Your task to perform on an android device: turn off javascript in the chrome app Image 0: 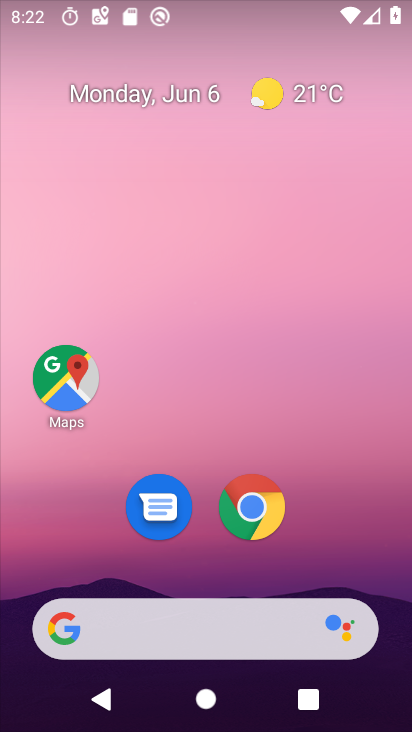
Step 0: press home button
Your task to perform on an android device: turn off javascript in the chrome app Image 1: 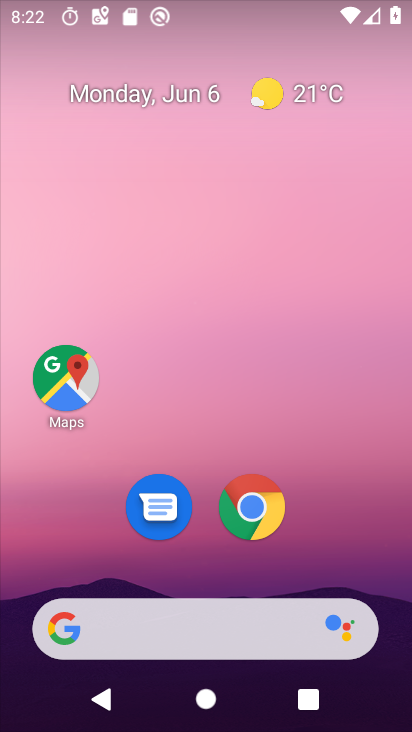
Step 1: click (240, 492)
Your task to perform on an android device: turn off javascript in the chrome app Image 2: 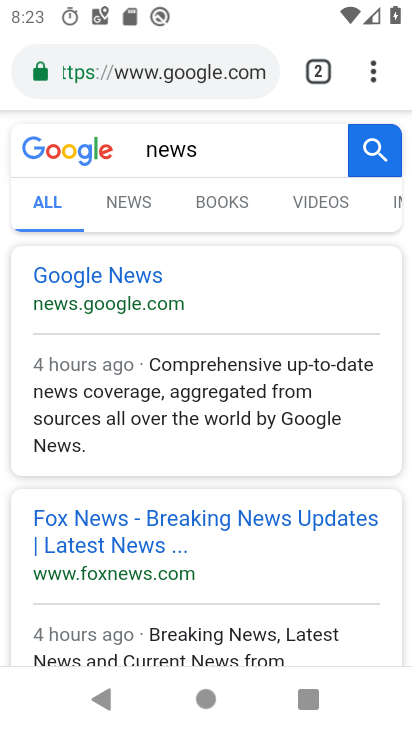
Step 2: drag from (382, 79) to (192, 508)
Your task to perform on an android device: turn off javascript in the chrome app Image 3: 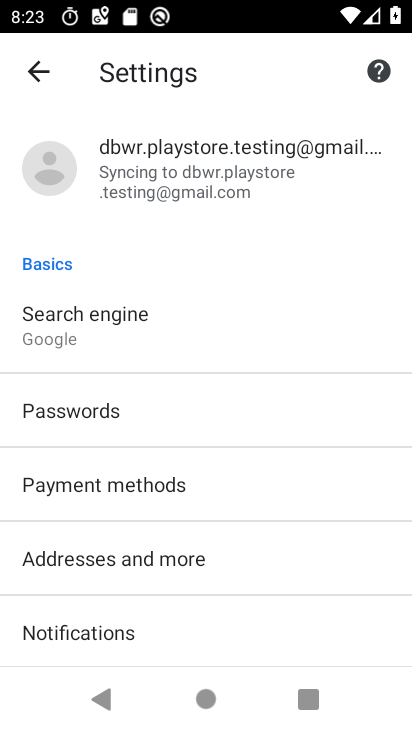
Step 3: drag from (179, 643) to (256, 31)
Your task to perform on an android device: turn off javascript in the chrome app Image 4: 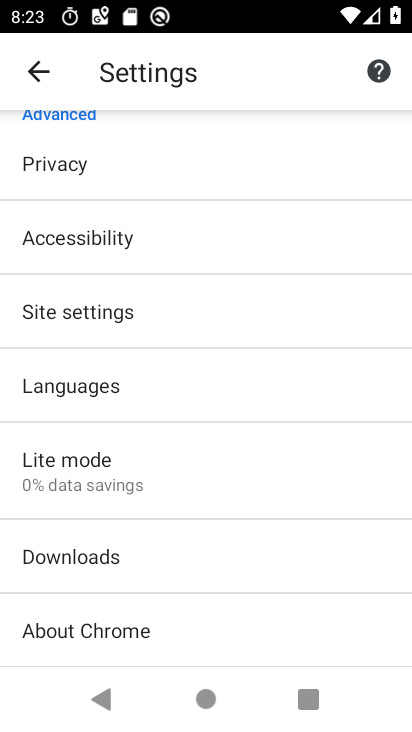
Step 4: click (123, 314)
Your task to perform on an android device: turn off javascript in the chrome app Image 5: 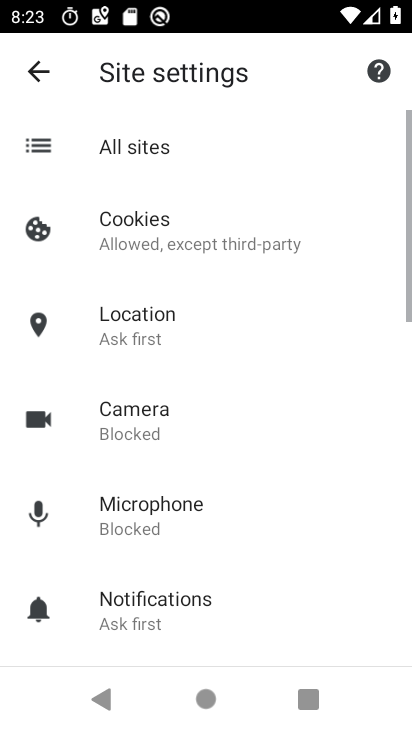
Step 5: drag from (179, 555) to (239, 173)
Your task to perform on an android device: turn off javascript in the chrome app Image 6: 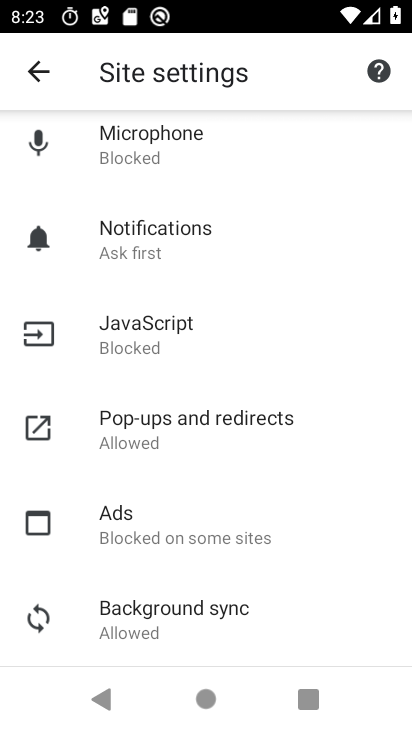
Step 6: click (196, 320)
Your task to perform on an android device: turn off javascript in the chrome app Image 7: 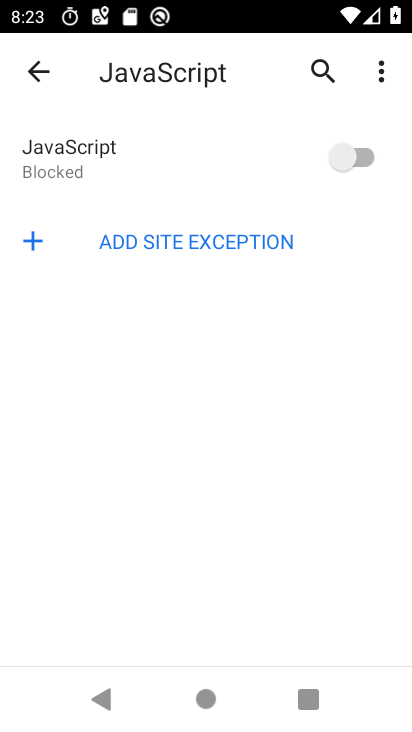
Step 7: task complete